Your task to perform on an android device: check google app version Image 0: 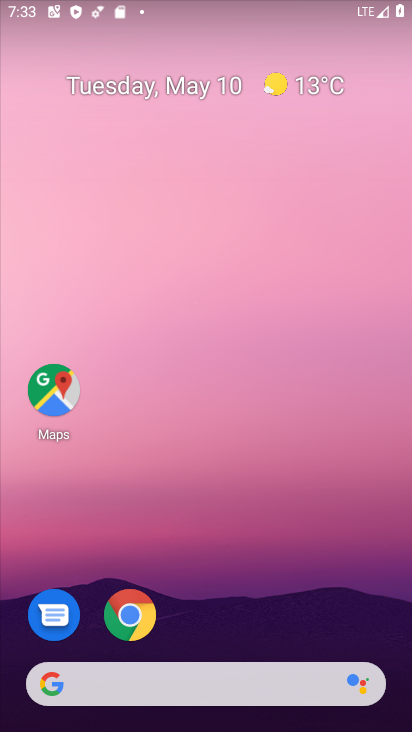
Step 0: drag from (267, 605) to (321, 99)
Your task to perform on an android device: check google app version Image 1: 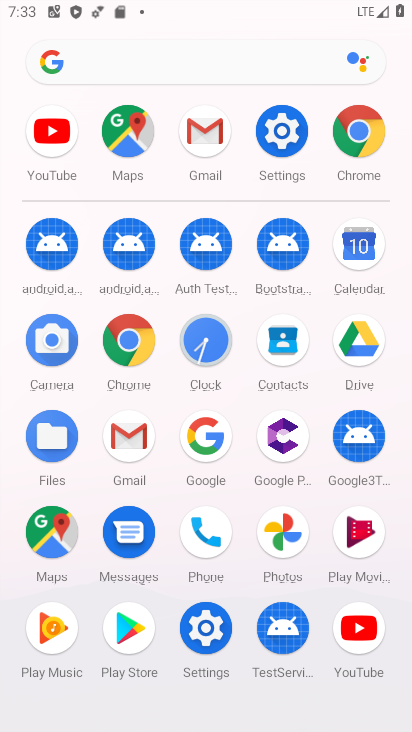
Step 1: click (294, 132)
Your task to perform on an android device: check google app version Image 2: 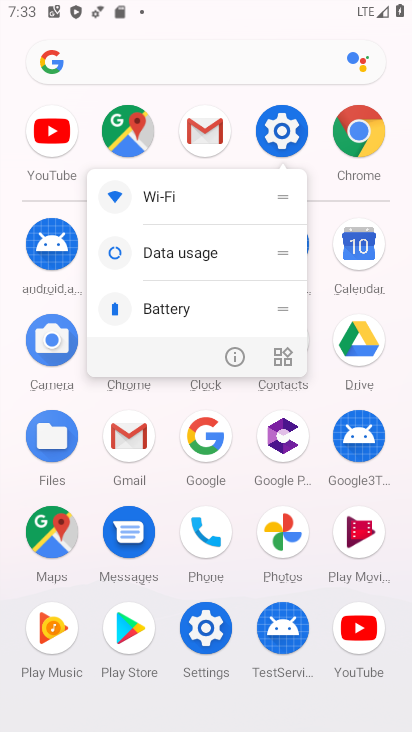
Step 2: click (213, 450)
Your task to perform on an android device: check google app version Image 3: 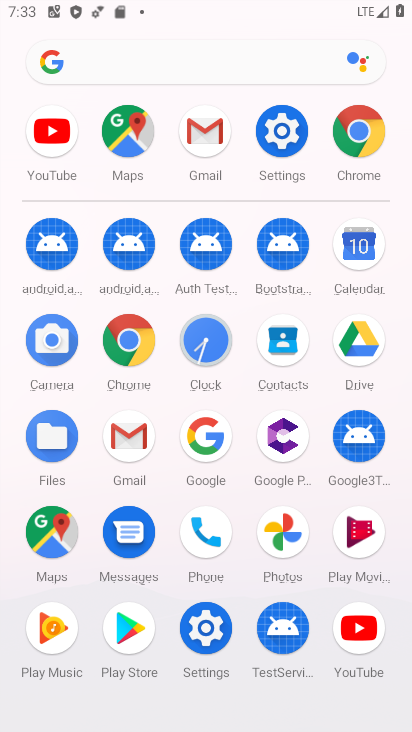
Step 3: click (211, 440)
Your task to perform on an android device: check google app version Image 4: 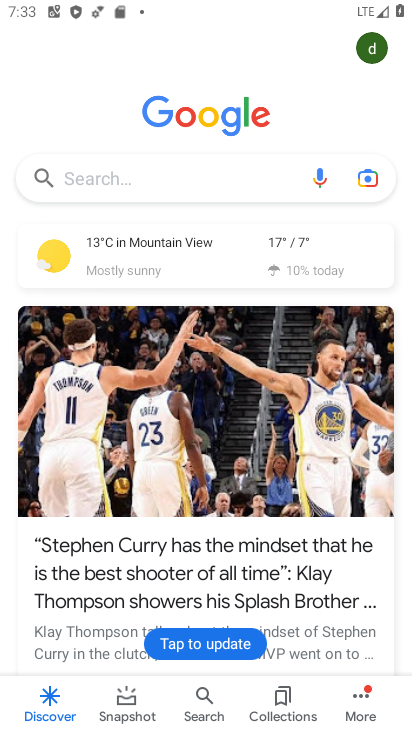
Step 4: click (359, 701)
Your task to perform on an android device: check google app version Image 5: 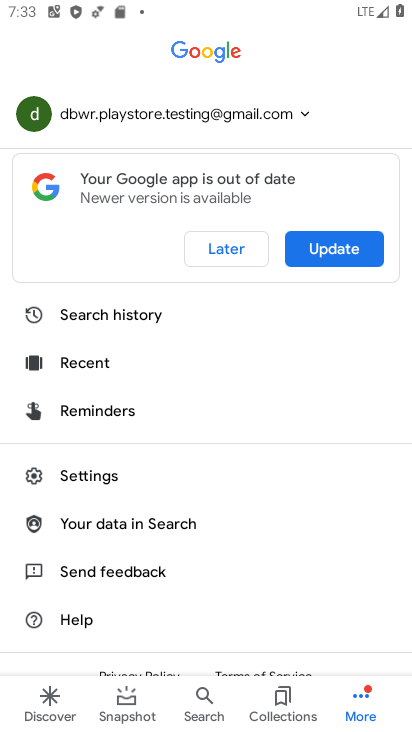
Step 5: drag from (221, 566) to (281, 137)
Your task to perform on an android device: check google app version Image 6: 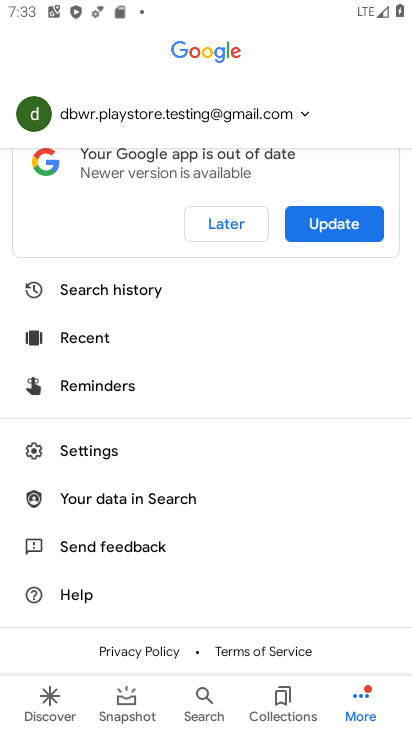
Step 6: click (82, 458)
Your task to perform on an android device: check google app version Image 7: 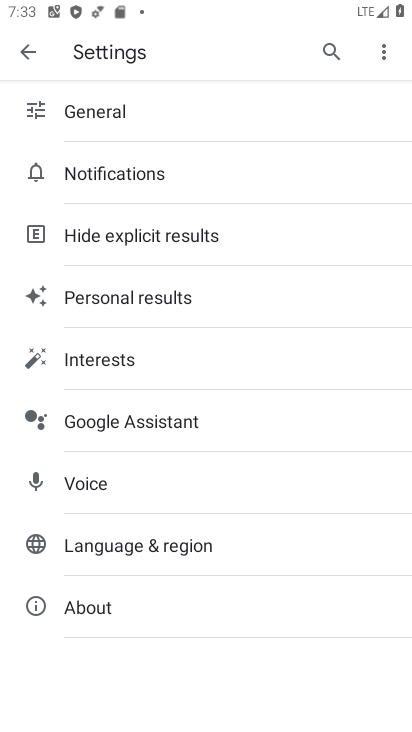
Step 7: click (97, 606)
Your task to perform on an android device: check google app version Image 8: 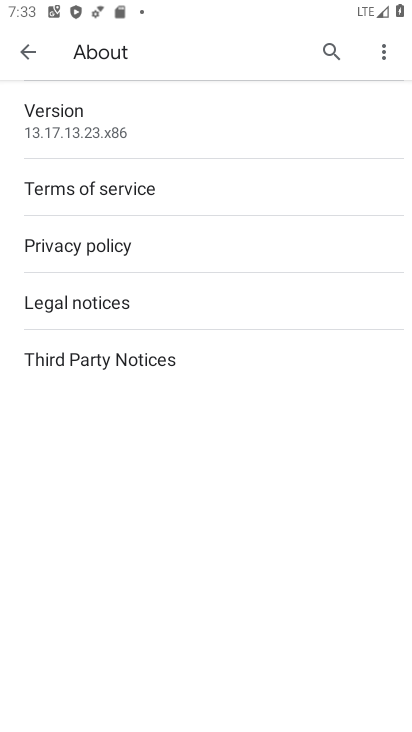
Step 8: click (86, 135)
Your task to perform on an android device: check google app version Image 9: 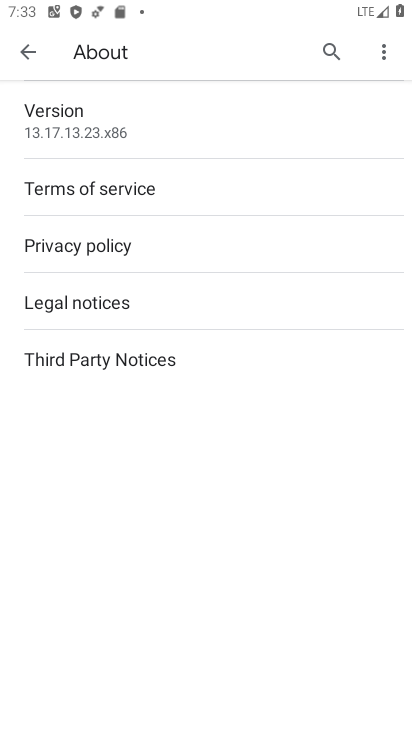
Step 9: task complete